Your task to perform on an android device: check android version Image 0: 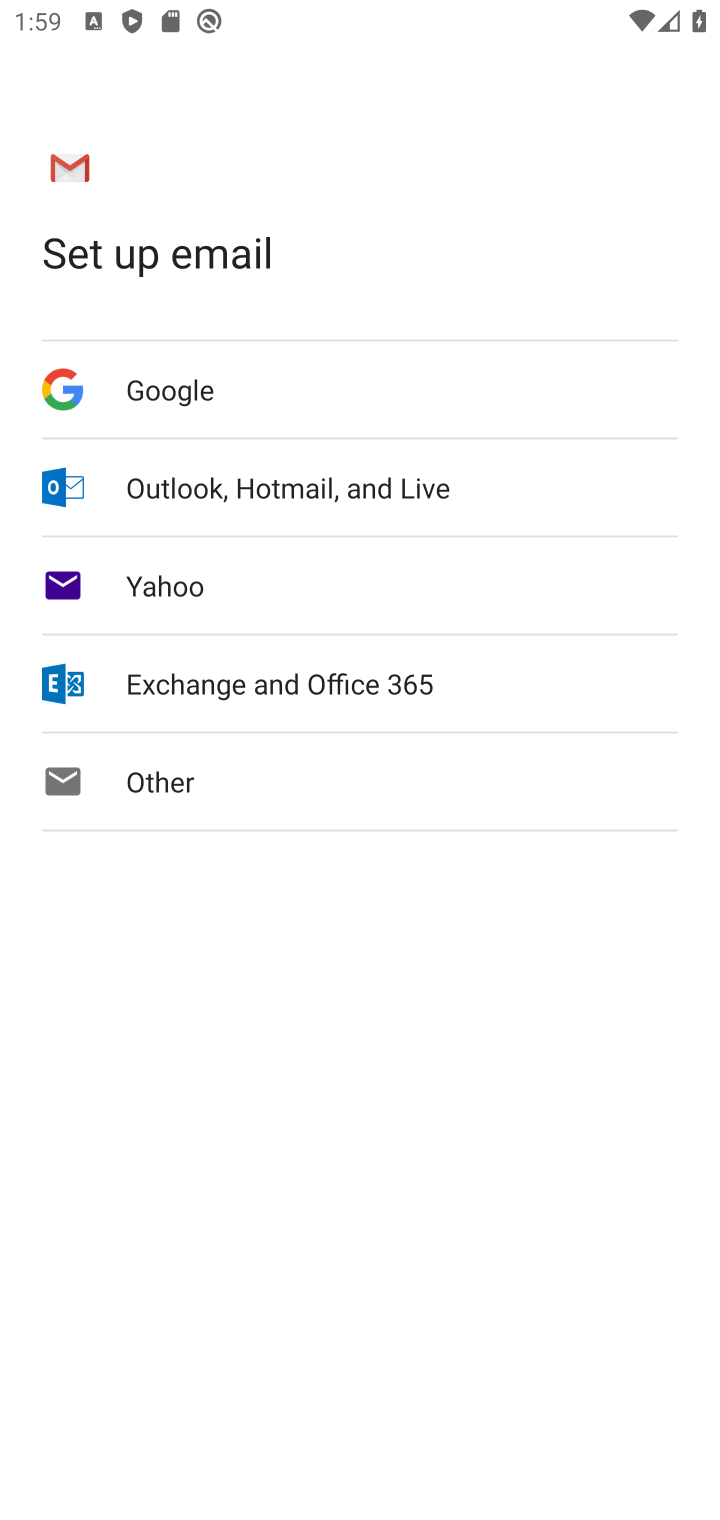
Step 0: press home button
Your task to perform on an android device: check android version Image 1: 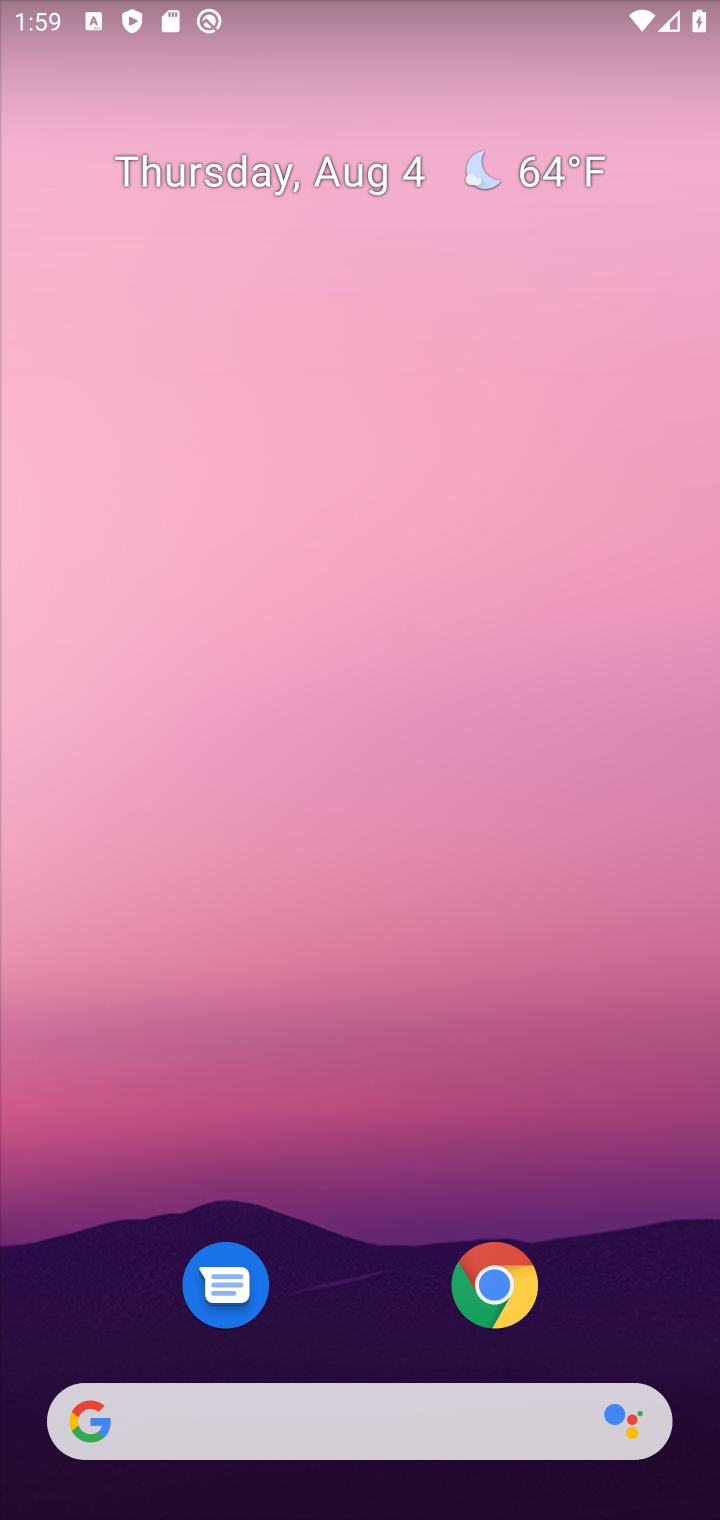
Step 1: drag from (654, 1292) to (560, 432)
Your task to perform on an android device: check android version Image 2: 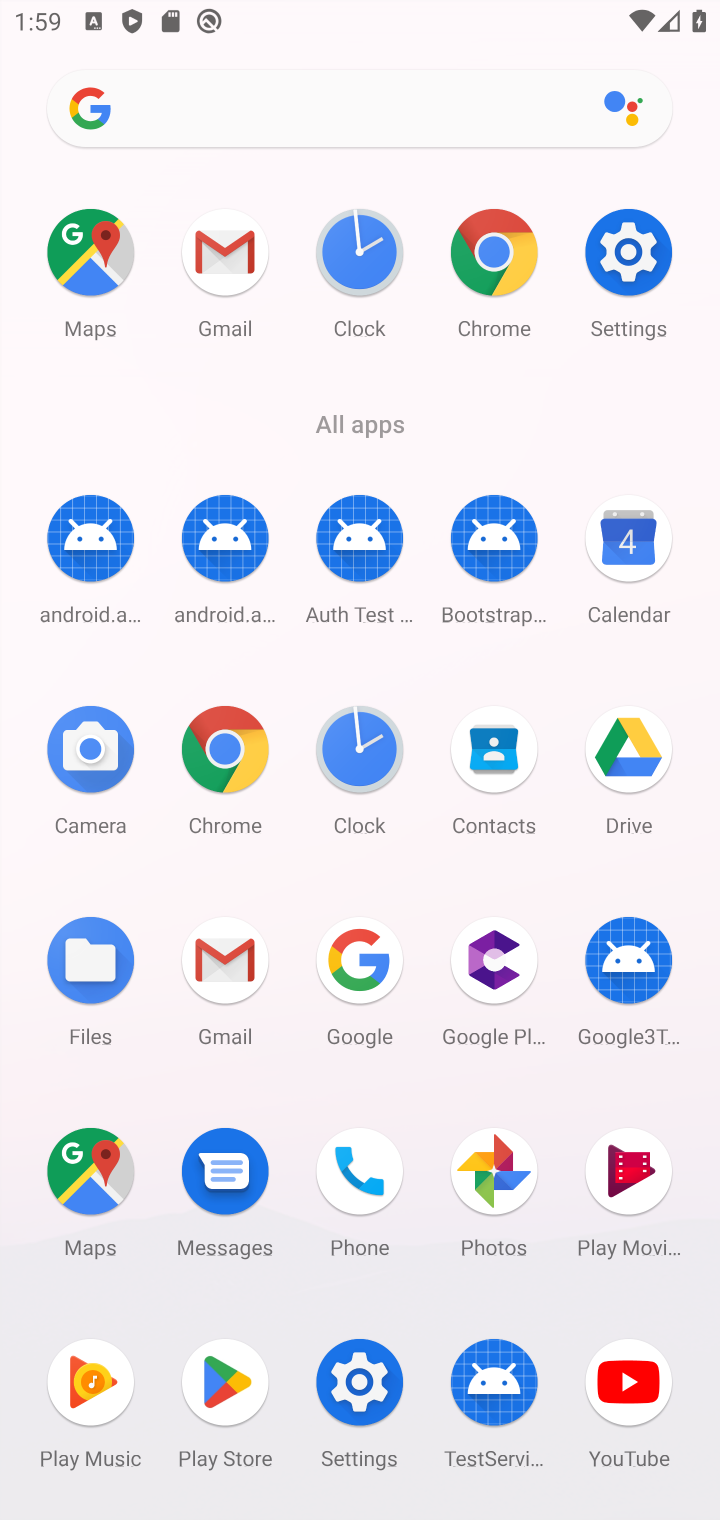
Step 2: click (364, 1383)
Your task to perform on an android device: check android version Image 3: 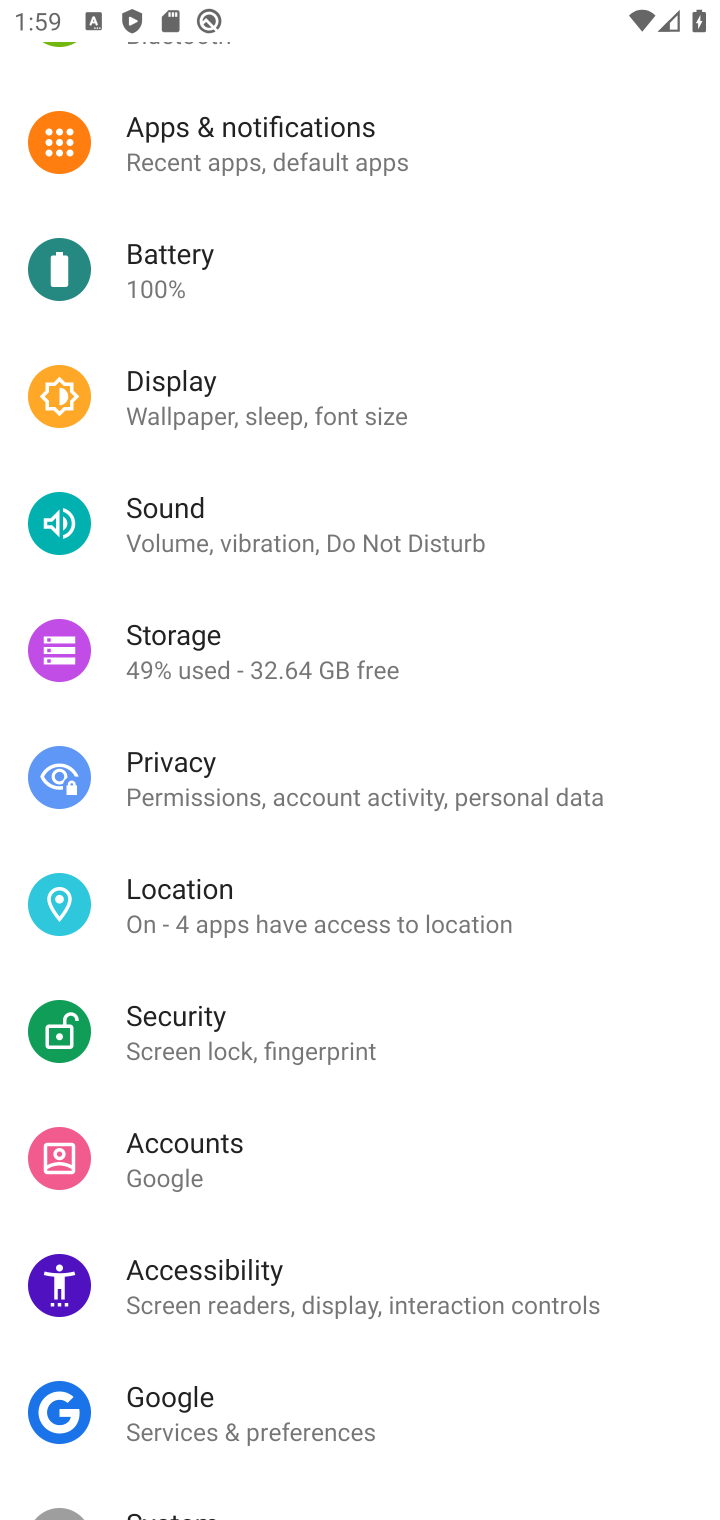
Step 3: drag from (606, 1323) to (559, 562)
Your task to perform on an android device: check android version Image 4: 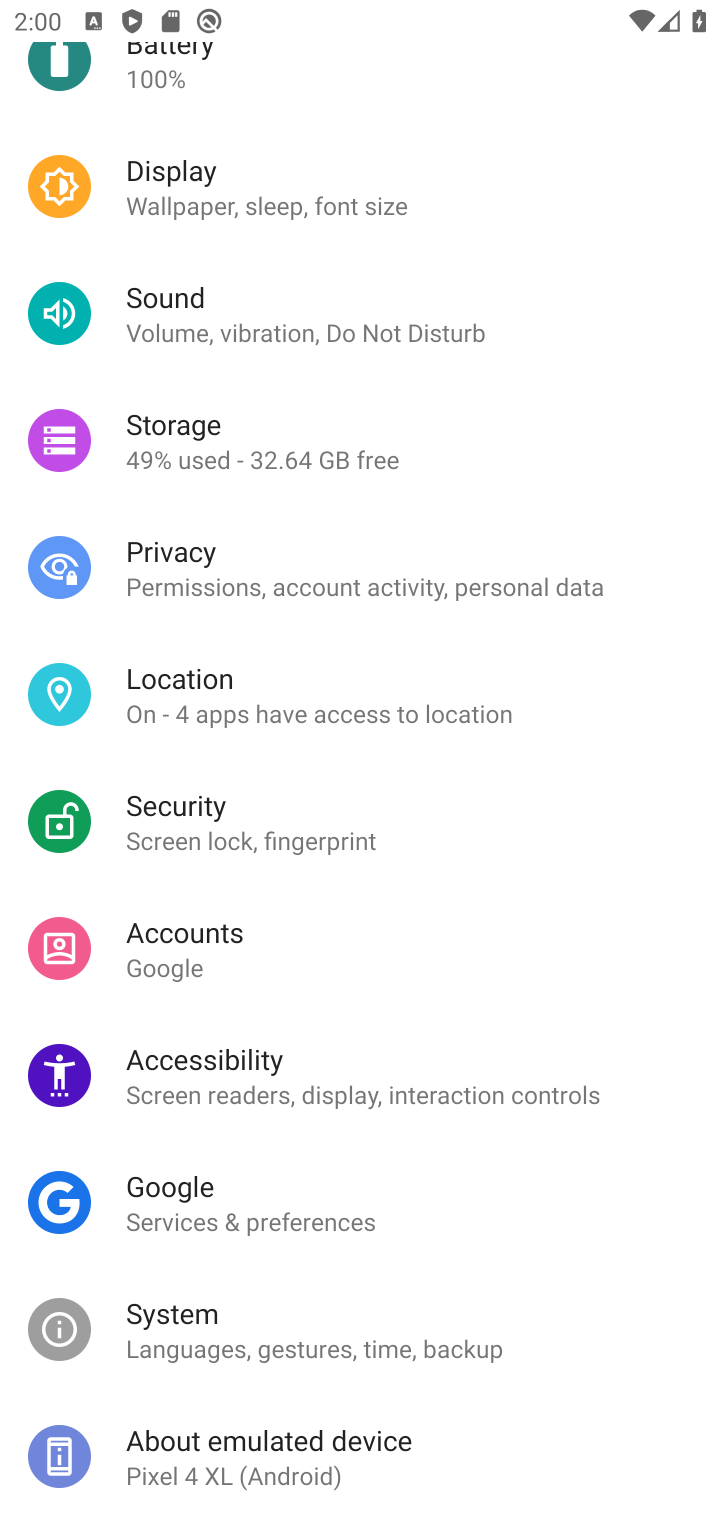
Step 4: click (215, 1438)
Your task to perform on an android device: check android version Image 5: 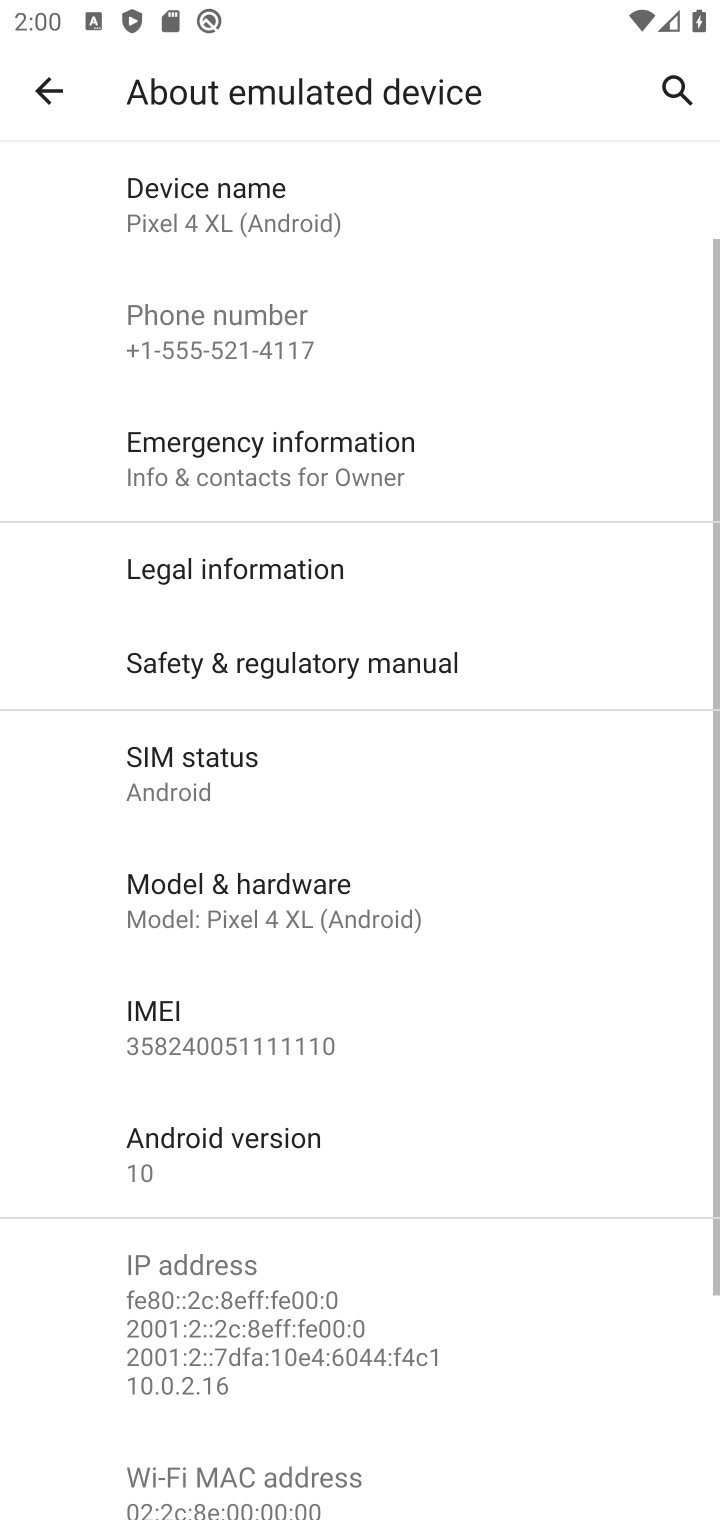
Step 5: click (188, 1156)
Your task to perform on an android device: check android version Image 6: 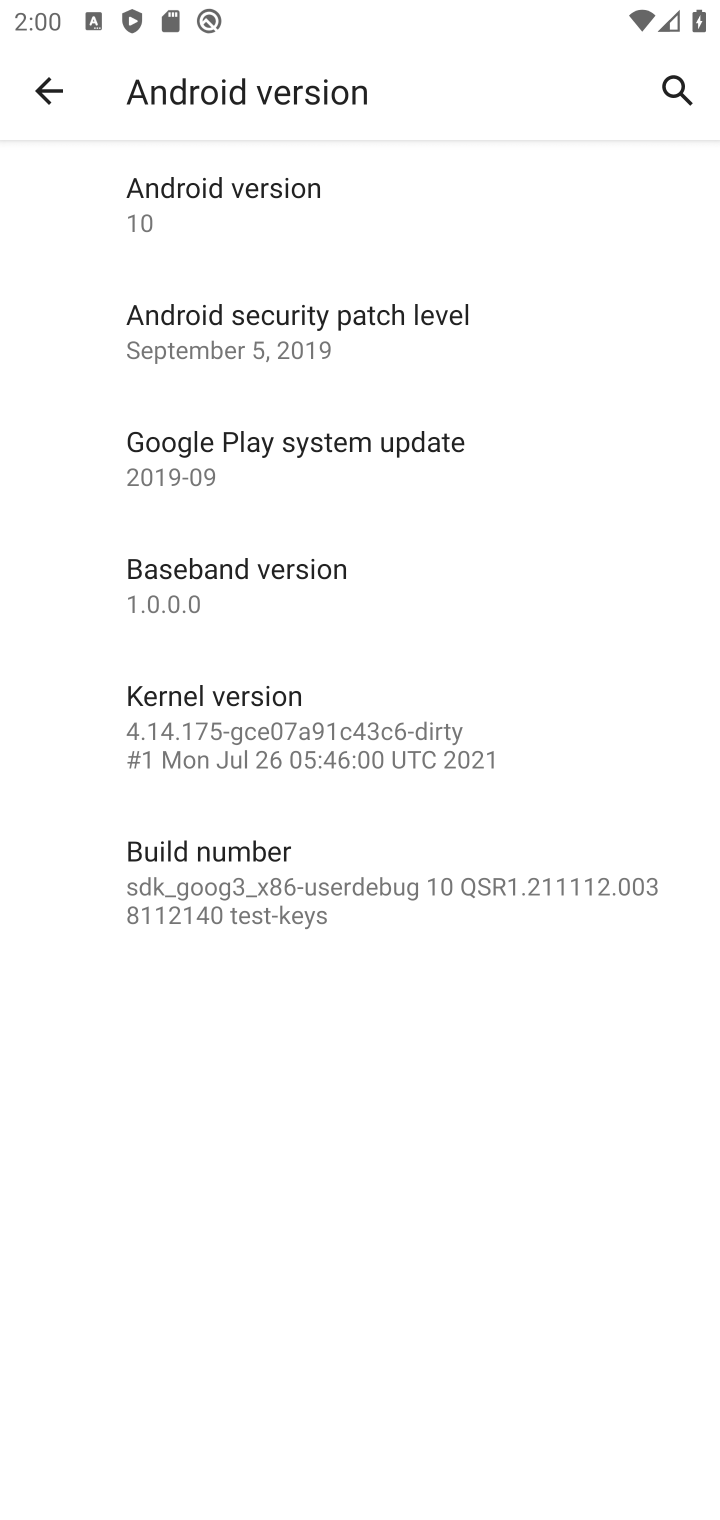
Step 6: click (192, 192)
Your task to perform on an android device: check android version Image 7: 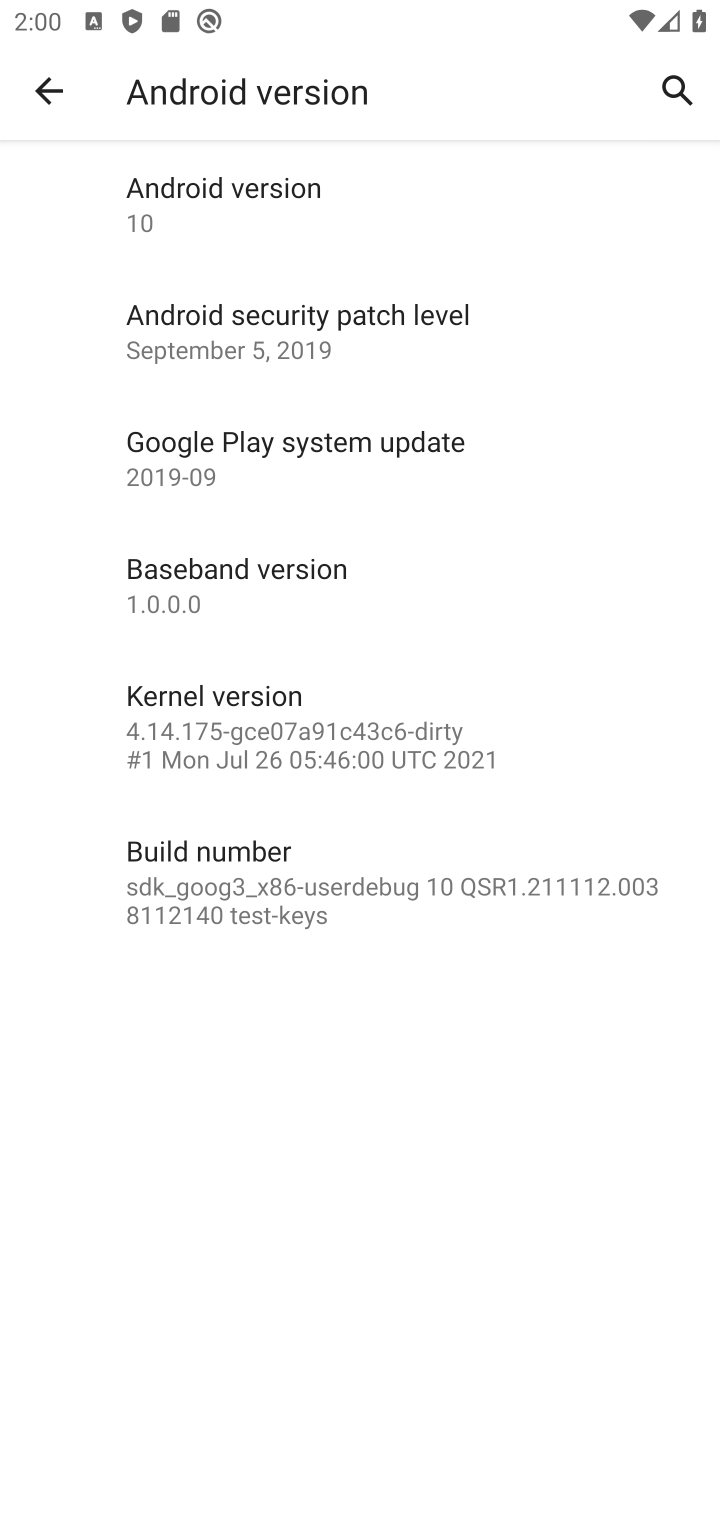
Step 7: task complete